Your task to perform on an android device: Open Android settings Image 0: 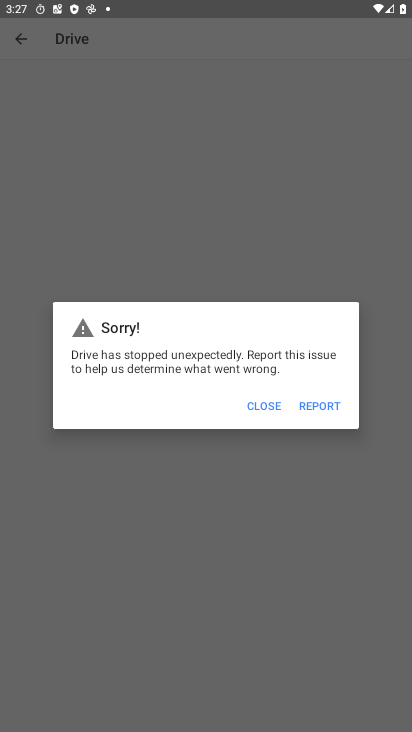
Step 0: press home button
Your task to perform on an android device: Open Android settings Image 1: 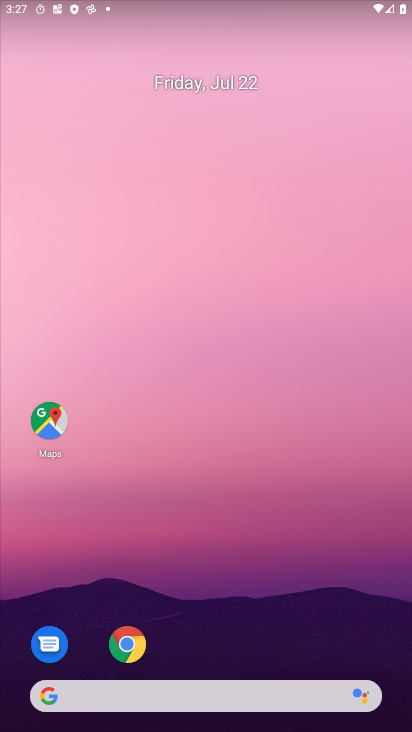
Step 1: drag from (254, 696) to (213, 136)
Your task to perform on an android device: Open Android settings Image 2: 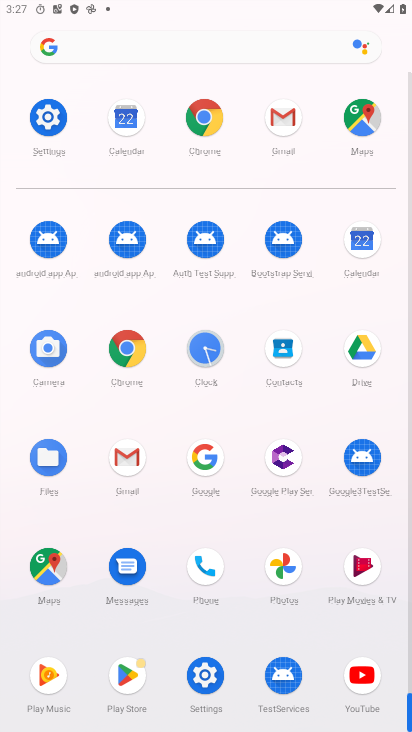
Step 2: click (53, 129)
Your task to perform on an android device: Open Android settings Image 3: 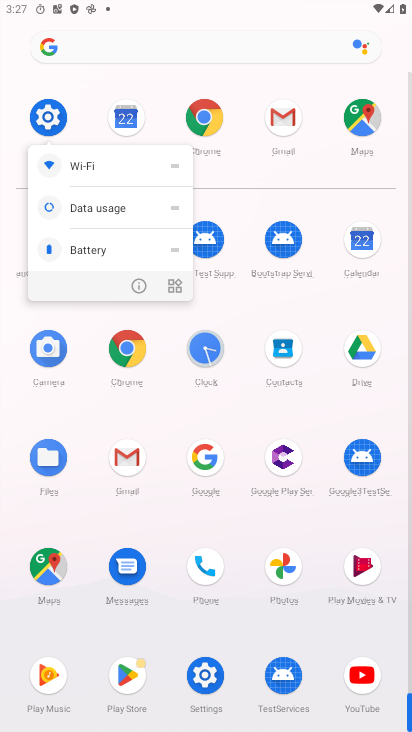
Step 3: click (53, 91)
Your task to perform on an android device: Open Android settings Image 4: 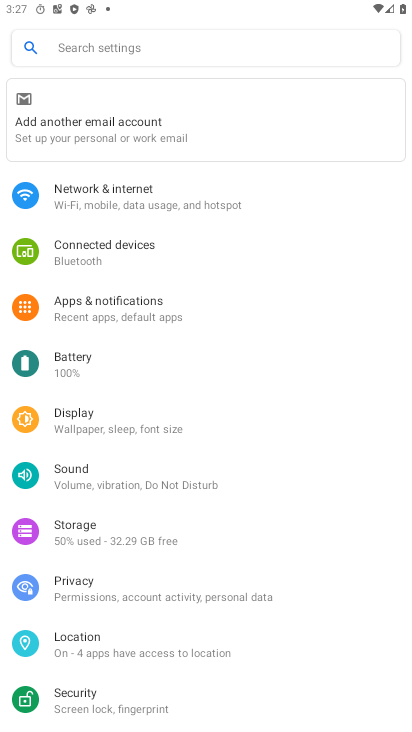
Step 4: drag from (138, 490) to (91, 95)
Your task to perform on an android device: Open Android settings Image 5: 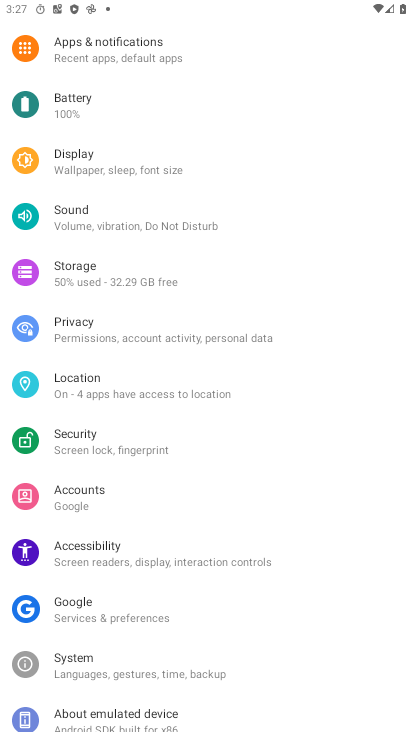
Step 5: drag from (171, 587) to (133, 130)
Your task to perform on an android device: Open Android settings Image 6: 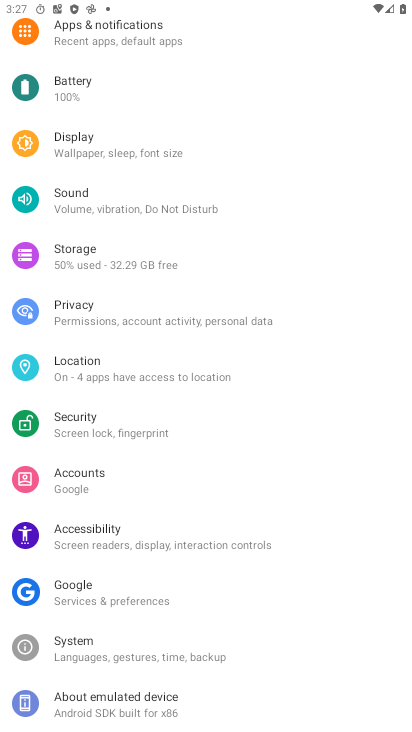
Step 6: drag from (141, 498) to (160, 210)
Your task to perform on an android device: Open Android settings Image 7: 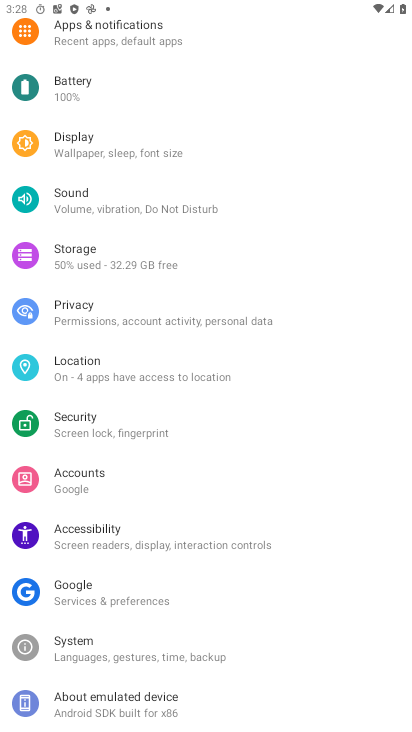
Step 7: click (88, 712)
Your task to perform on an android device: Open Android settings Image 8: 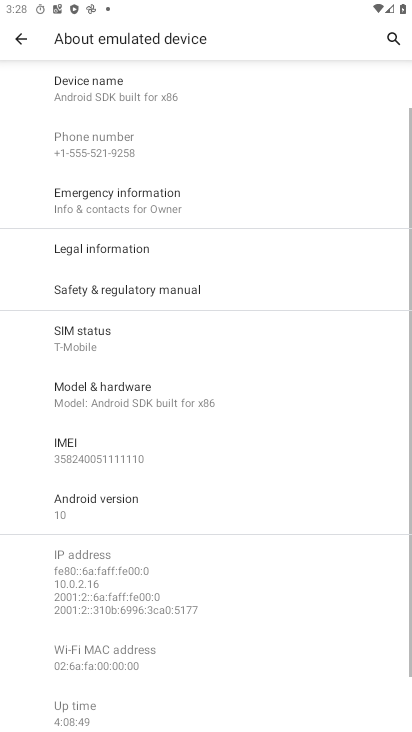
Step 8: drag from (176, 629) to (171, 363)
Your task to perform on an android device: Open Android settings Image 9: 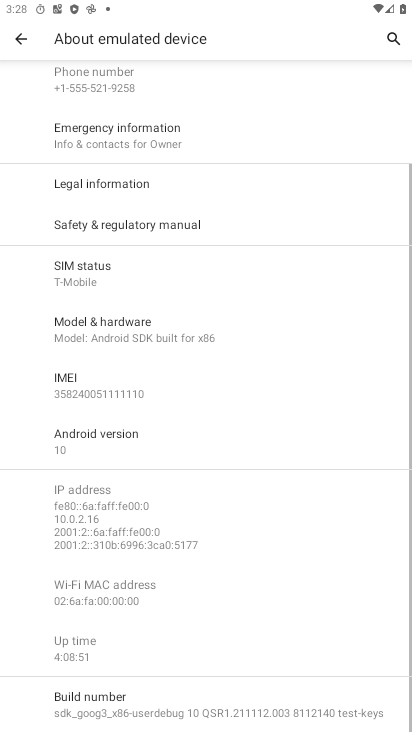
Step 9: click (161, 449)
Your task to perform on an android device: Open Android settings Image 10: 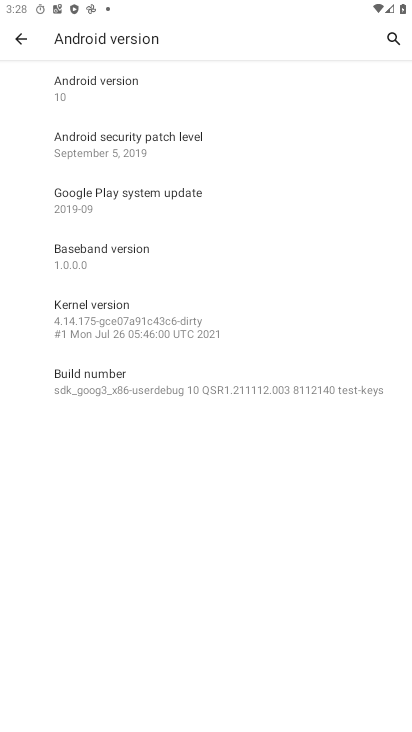
Step 10: task complete